Your task to perform on an android device: toggle priority inbox in the gmail app Image 0: 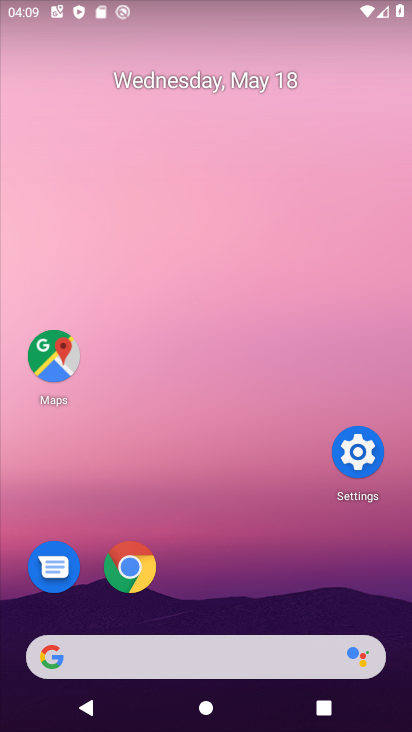
Step 0: drag from (205, 590) to (274, 84)
Your task to perform on an android device: toggle priority inbox in the gmail app Image 1: 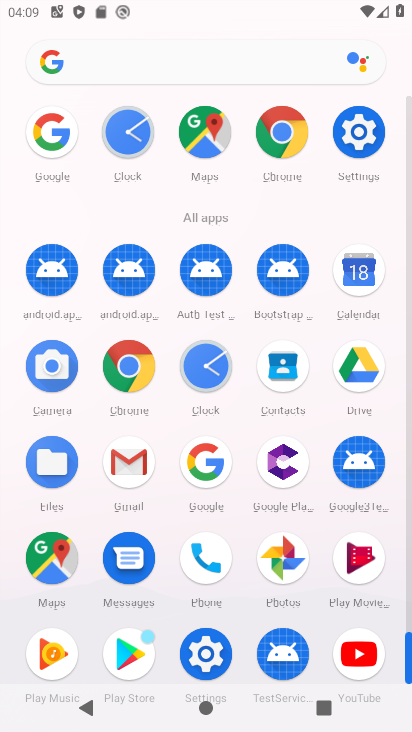
Step 1: click (124, 452)
Your task to perform on an android device: toggle priority inbox in the gmail app Image 2: 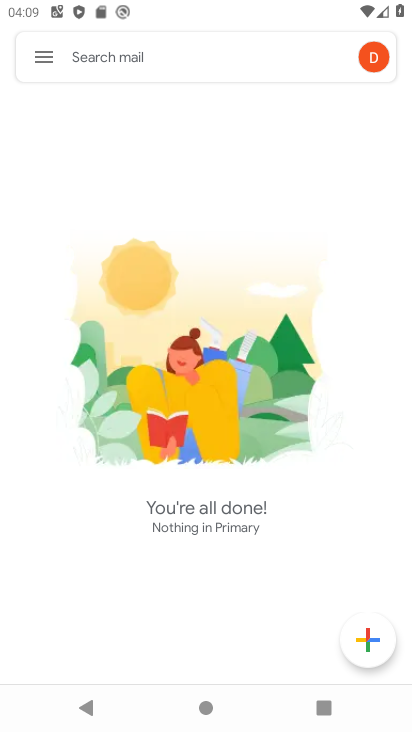
Step 2: click (42, 53)
Your task to perform on an android device: toggle priority inbox in the gmail app Image 3: 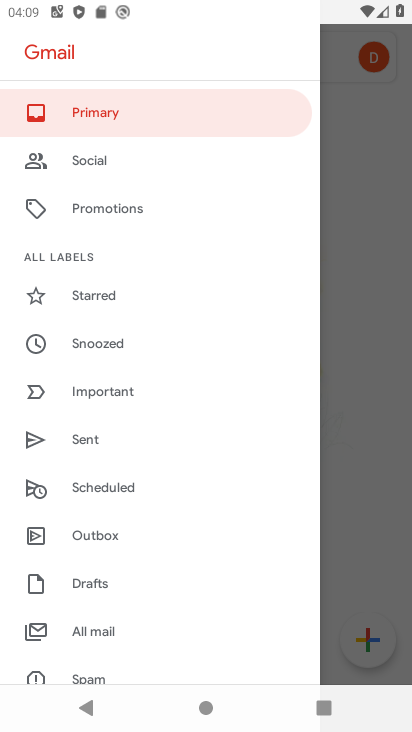
Step 3: drag from (200, 501) to (210, 71)
Your task to perform on an android device: toggle priority inbox in the gmail app Image 4: 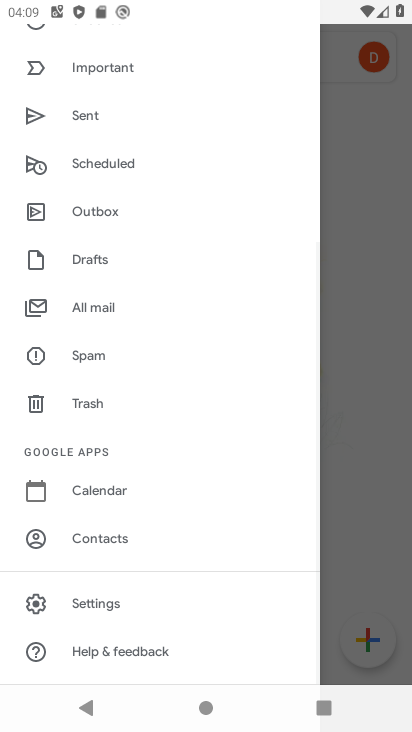
Step 4: click (92, 594)
Your task to perform on an android device: toggle priority inbox in the gmail app Image 5: 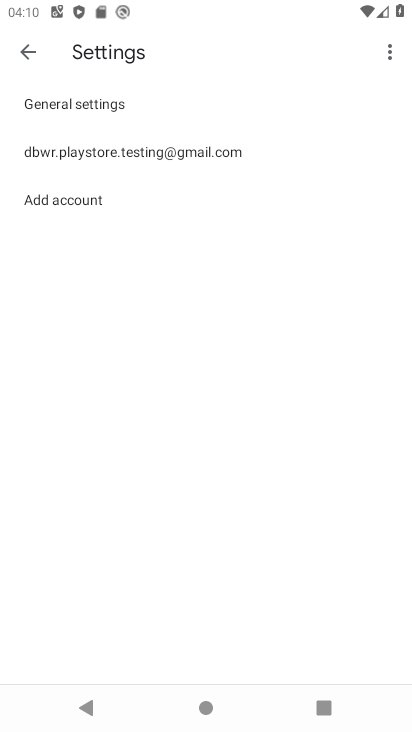
Step 5: click (116, 160)
Your task to perform on an android device: toggle priority inbox in the gmail app Image 6: 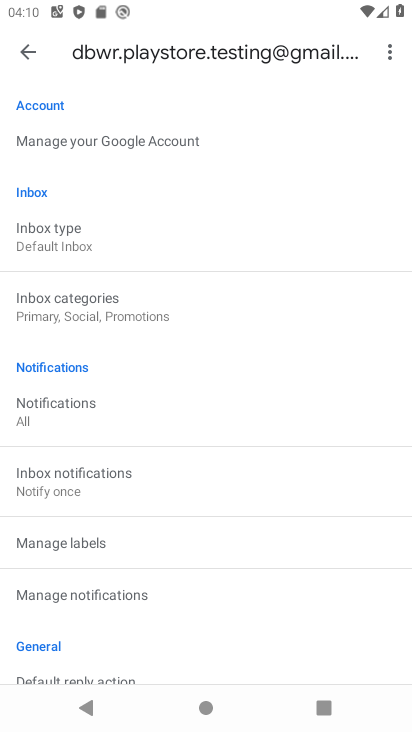
Step 6: click (59, 235)
Your task to perform on an android device: toggle priority inbox in the gmail app Image 7: 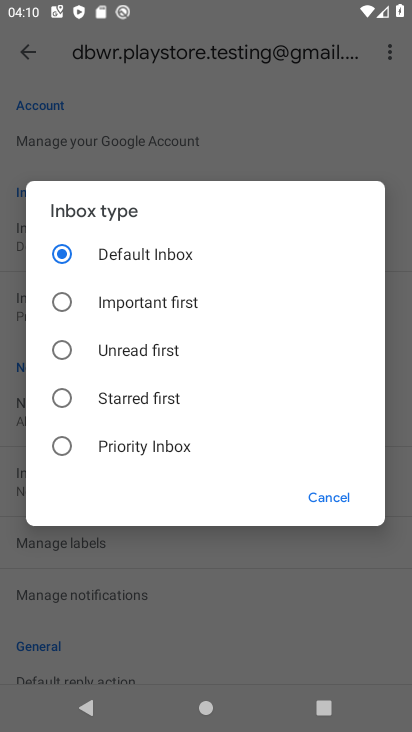
Step 7: click (150, 441)
Your task to perform on an android device: toggle priority inbox in the gmail app Image 8: 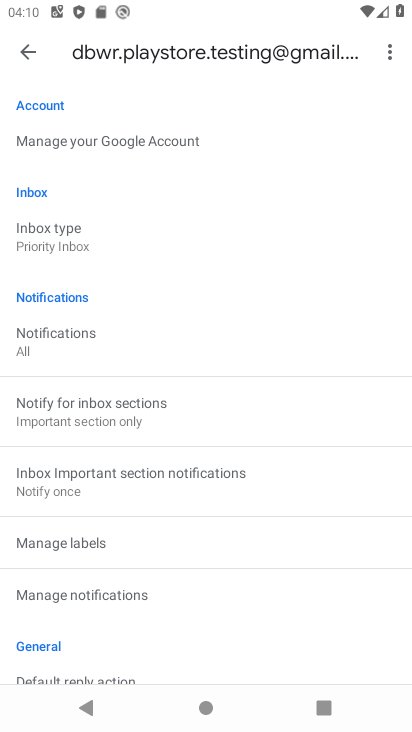
Step 8: task complete